Your task to perform on an android device: Go to network settings Image 0: 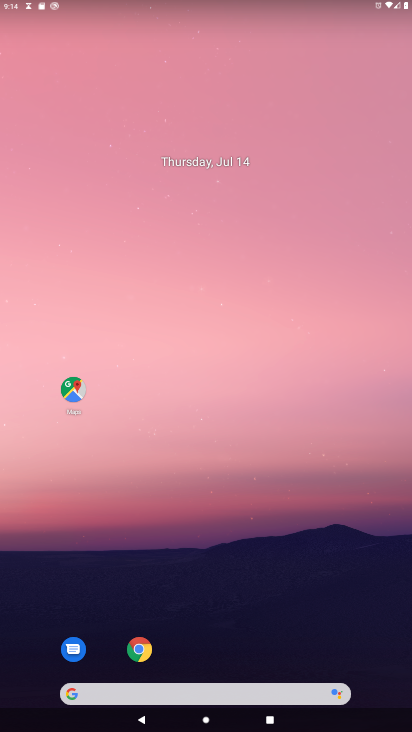
Step 0: drag from (220, 618) to (183, 18)
Your task to perform on an android device: Go to network settings Image 1: 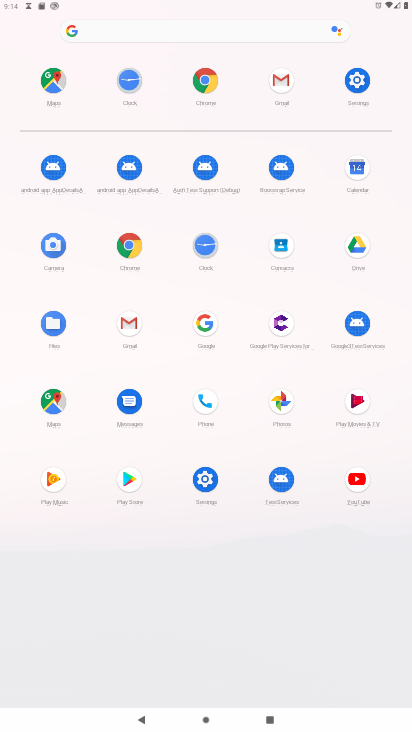
Step 1: click (357, 87)
Your task to perform on an android device: Go to network settings Image 2: 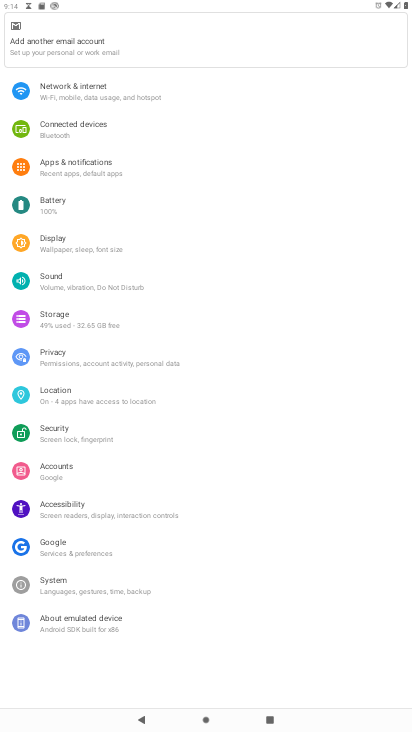
Step 2: click (75, 43)
Your task to perform on an android device: Go to network settings Image 3: 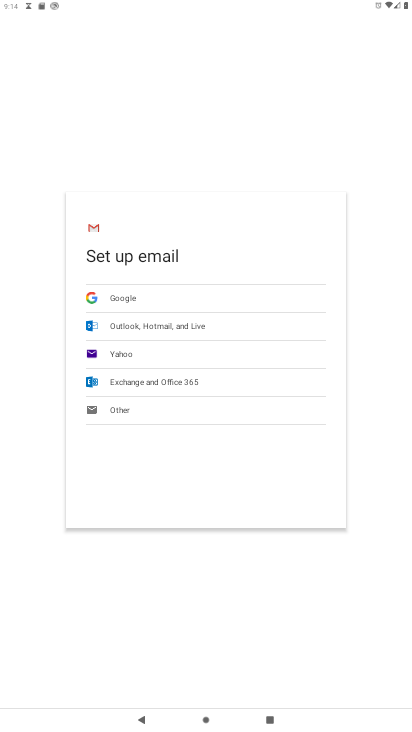
Step 3: press home button
Your task to perform on an android device: Go to network settings Image 4: 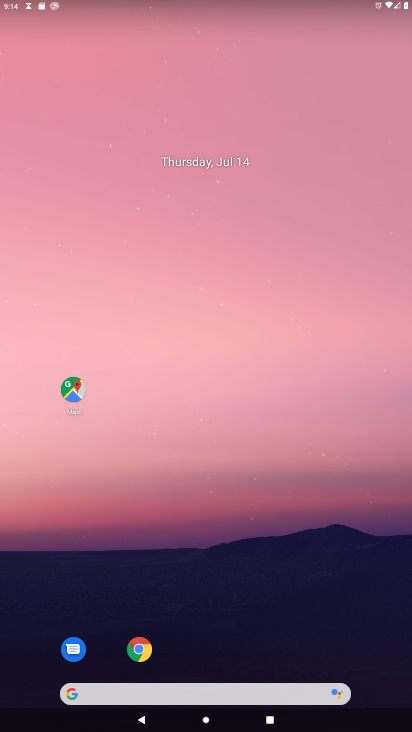
Step 4: drag from (211, 670) to (235, 71)
Your task to perform on an android device: Go to network settings Image 5: 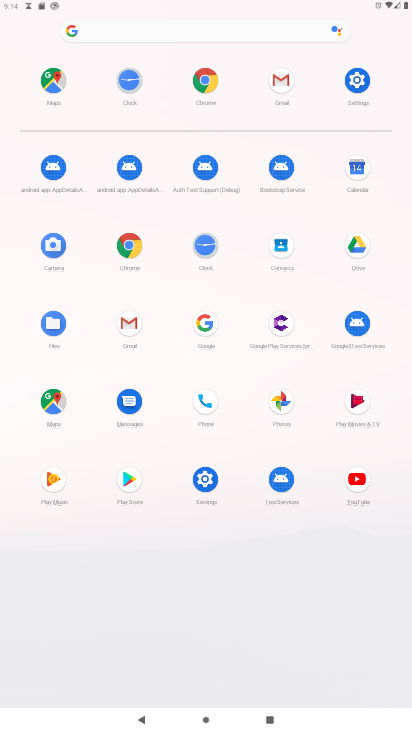
Step 5: click (203, 494)
Your task to perform on an android device: Go to network settings Image 6: 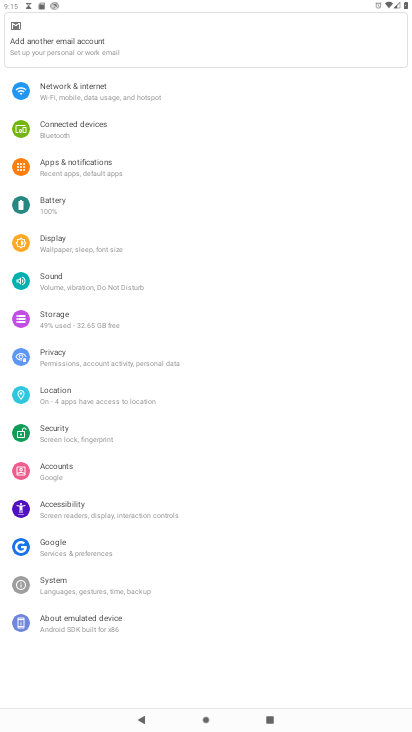
Step 6: click (94, 91)
Your task to perform on an android device: Go to network settings Image 7: 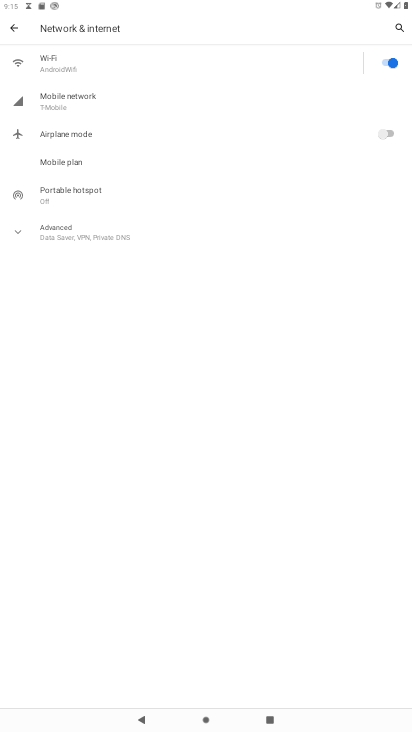
Step 7: task complete